Your task to perform on an android device: Go to accessibility settings Image 0: 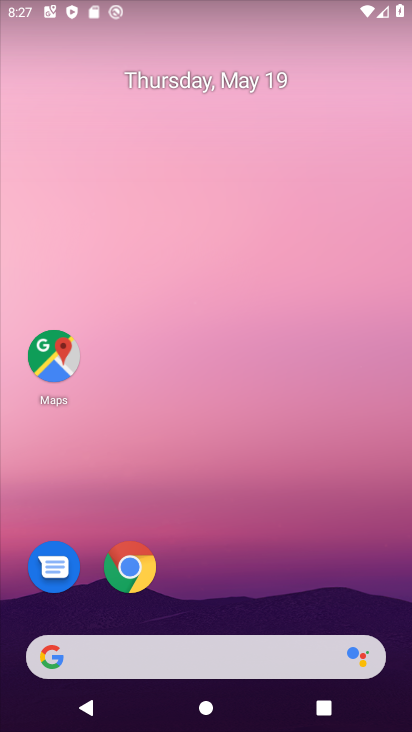
Step 0: drag from (224, 588) to (299, 52)
Your task to perform on an android device: Go to accessibility settings Image 1: 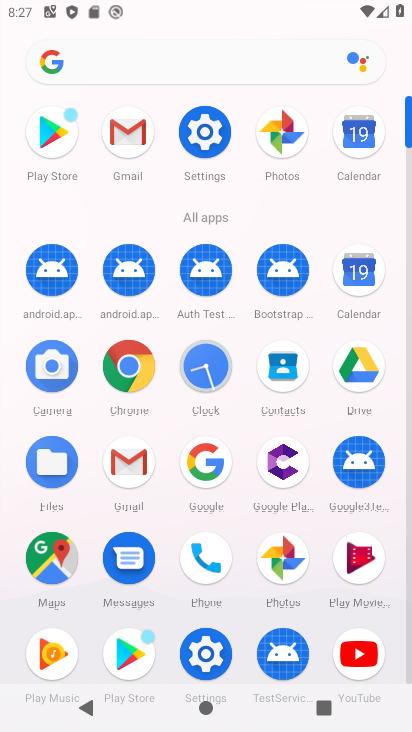
Step 1: click (210, 658)
Your task to perform on an android device: Go to accessibility settings Image 2: 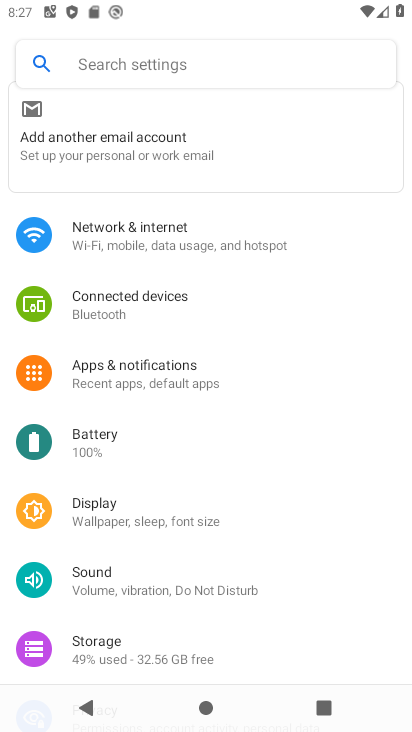
Step 2: drag from (153, 597) to (197, 240)
Your task to perform on an android device: Go to accessibility settings Image 3: 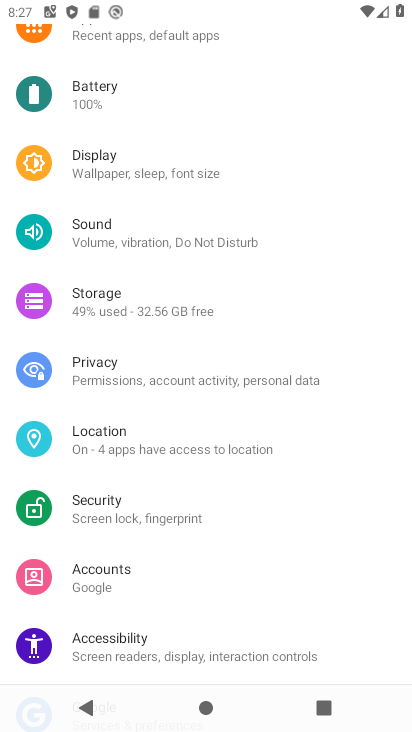
Step 3: click (142, 648)
Your task to perform on an android device: Go to accessibility settings Image 4: 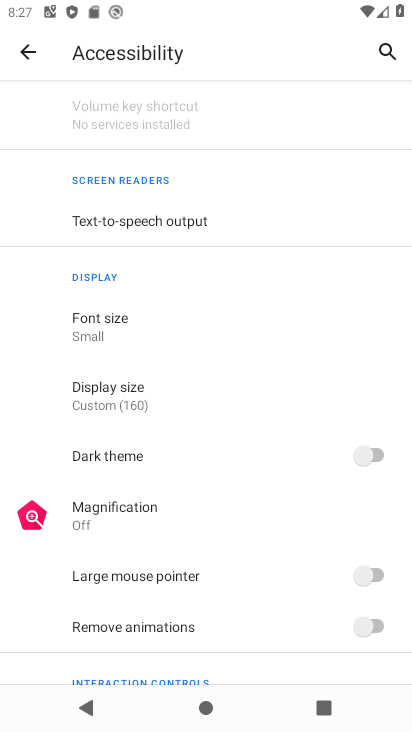
Step 4: task complete